Your task to perform on an android device: Open notification settings Image 0: 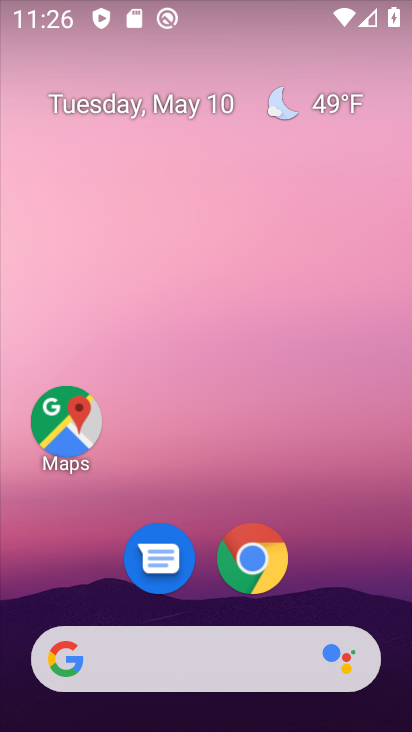
Step 0: drag from (357, 549) to (142, 0)
Your task to perform on an android device: Open notification settings Image 1: 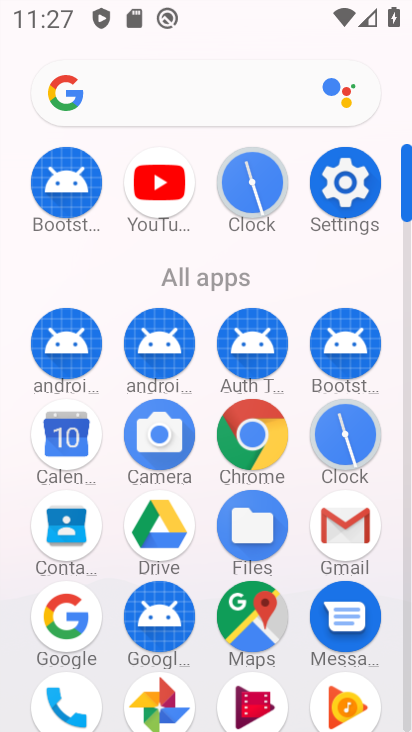
Step 1: click (322, 194)
Your task to perform on an android device: Open notification settings Image 2: 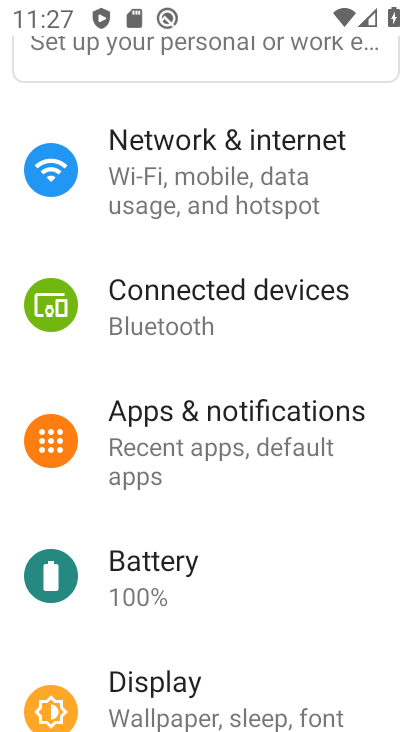
Step 2: click (151, 427)
Your task to perform on an android device: Open notification settings Image 3: 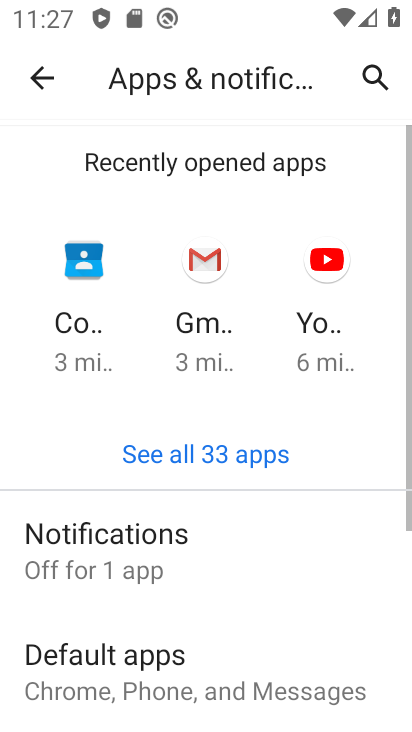
Step 3: click (232, 533)
Your task to perform on an android device: Open notification settings Image 4: 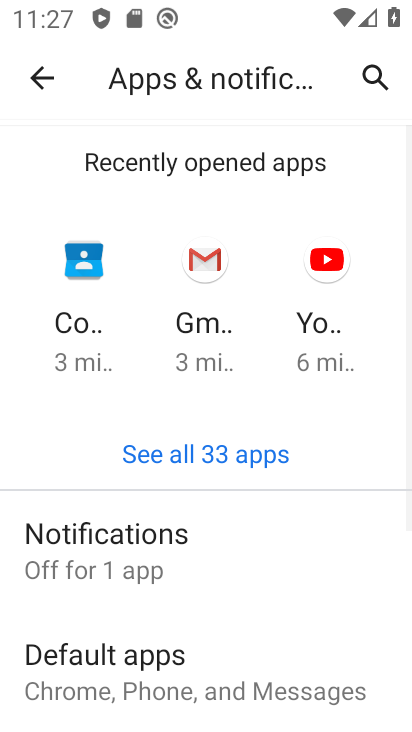
Step 4: drag from (241, 664) to (161, 256)
Your task to perform on an android device: Open notification settings Image 5: 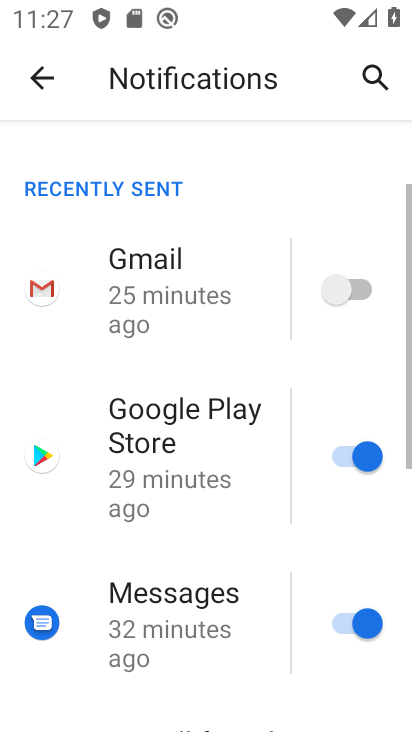
Step 5: drag from (253, 566) to (197, 216)
Your task to perform on an android device: Open notification settings Image 6: 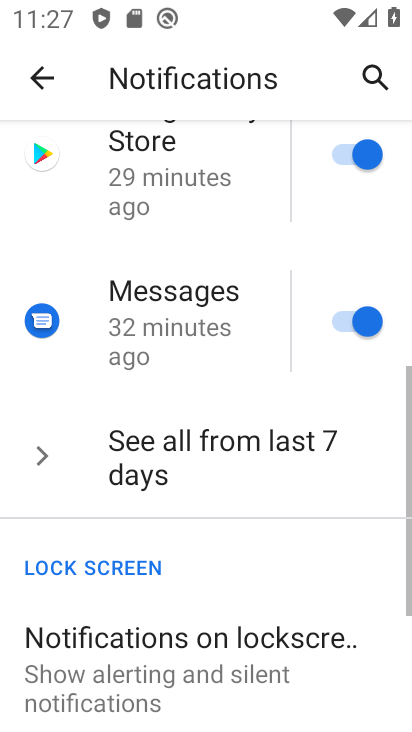
Step 6: drag from (223, 556) to (201, 274)
Your task to perform on an android device: Open notification settings Image 7: 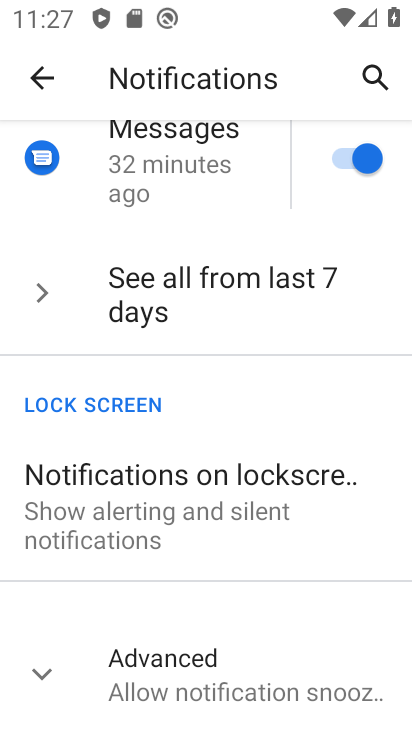
Step 7: click (370, 156)
Your task to perform on an android device: Open notification settings Image 8: 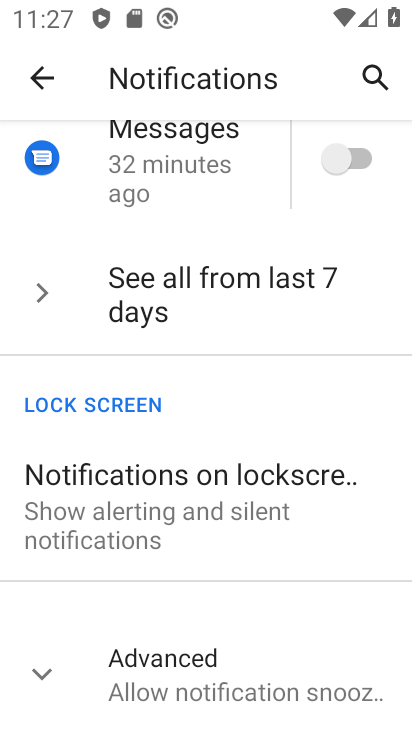
Step 8: click (222, 718)
Your task to perform on an android device: Open notification settings Image 9: 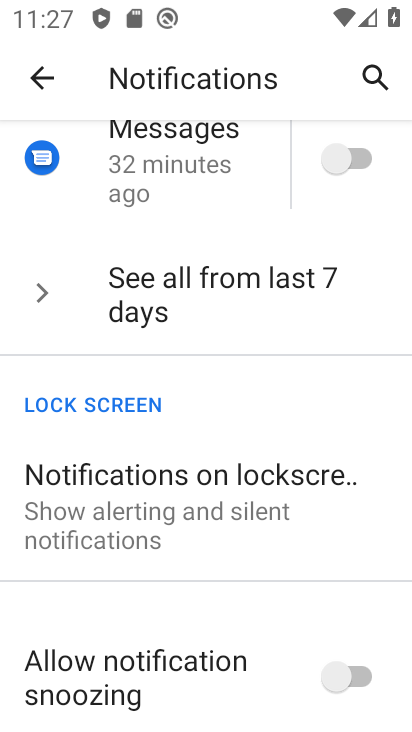
Step 9: task complete